Your task to perform on an android device: open chrome and create a bookmark for the current page Image 0: 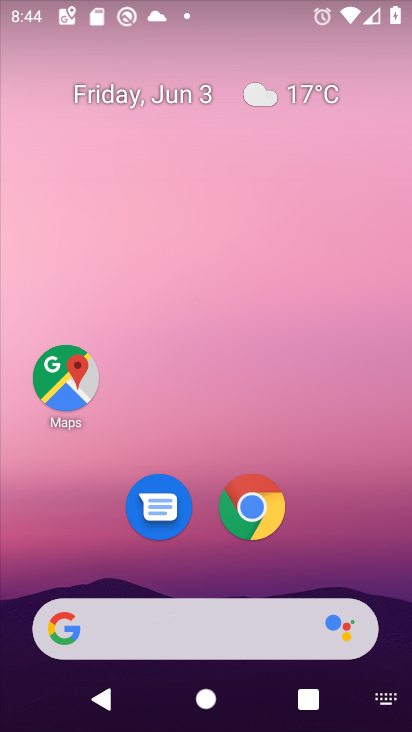
Step 0: press home button
Your task to perform on an android device: open chrome and create a bookmark for the current page Image 1: 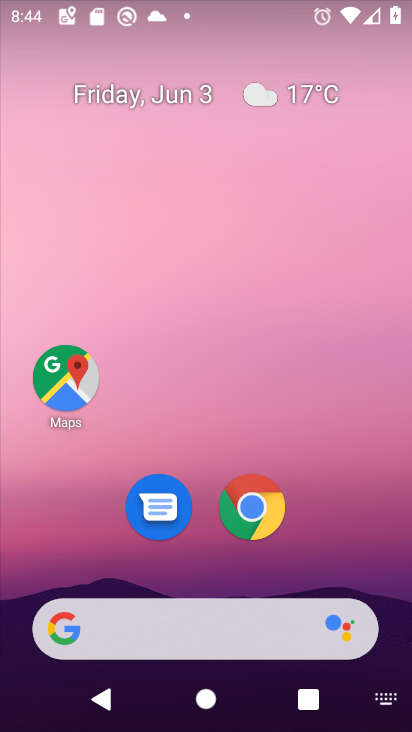
Step 1: click (241, 499)
Your task to perform on an android device: open chrome and create a bookmark for the current page Image 2: 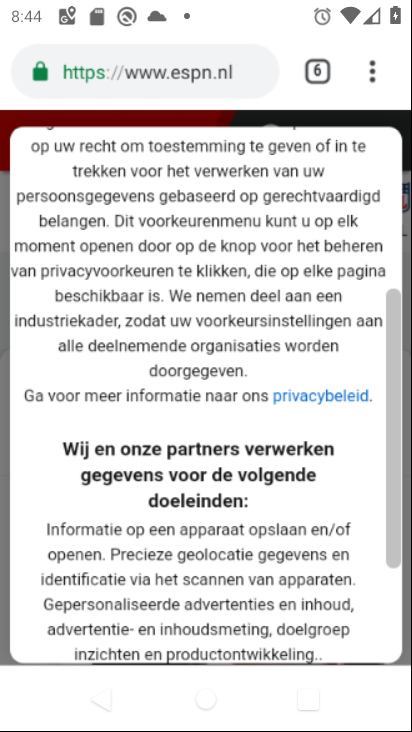
Step 2: click (375, 77)
Your task to perform on an android device: open chrome and create a bookmark for the current page Image 3: 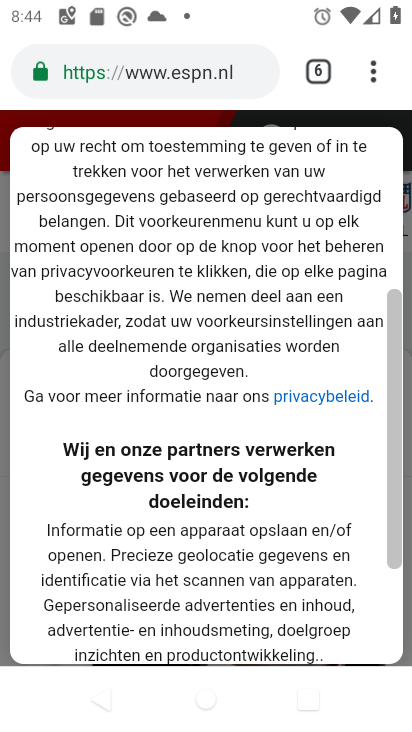
Step 3: click (374, 62)
Your task to perform on an android device: open chrome and create a bookmark for the current page Image 4: 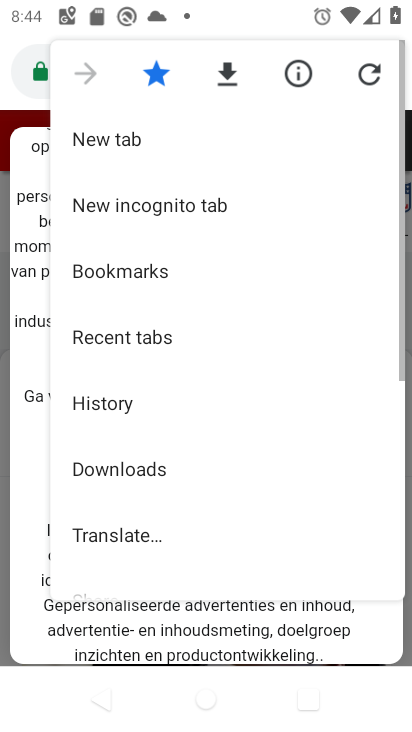
Step 4: click (146, 262)
Your task to perform on an android device: open chrome and create a bookmark for the current page Image 5: 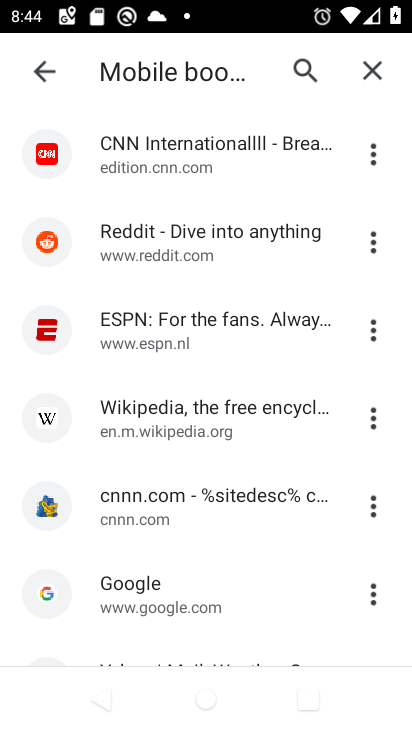
Step 5: click (199, 256)
Your task to perform on an android device: open chrome and create a bookmark for the current page Image 6: 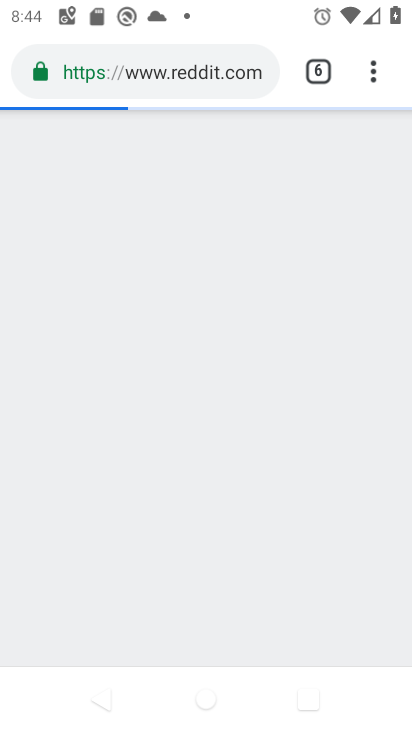
Step 6: click (360, 64)
Your task to perform on an android device: open chrome and create a bookmark for the current page Image 7: 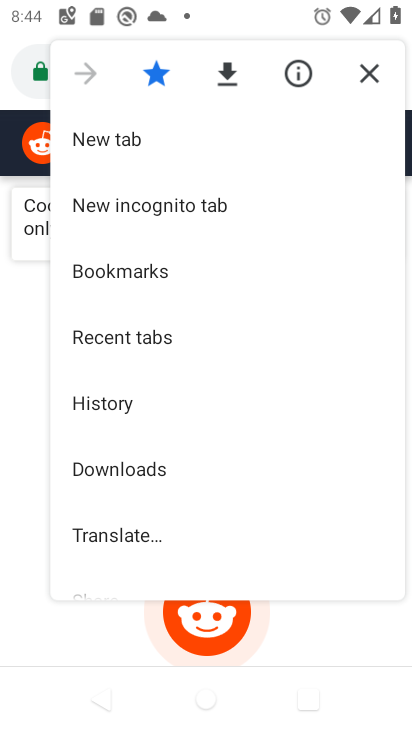
Step 7: task complete